Your task to perform on an android device: Search for sushi restaurants on Maps Image 0: 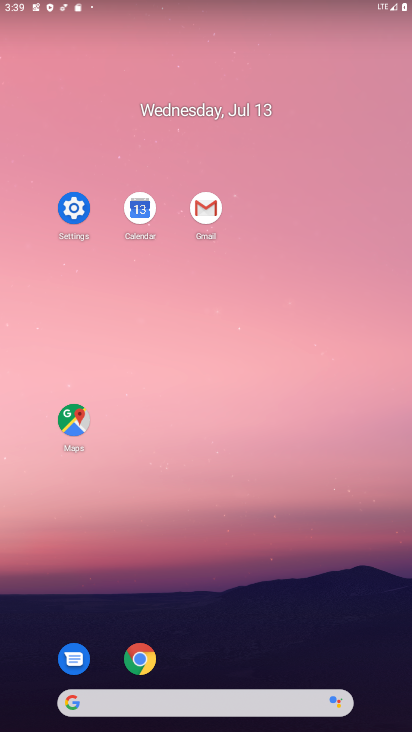
Step 0: click (74, 421)
Your task to perform on an android device: Search for sushi restaurants on Maps Image 1: 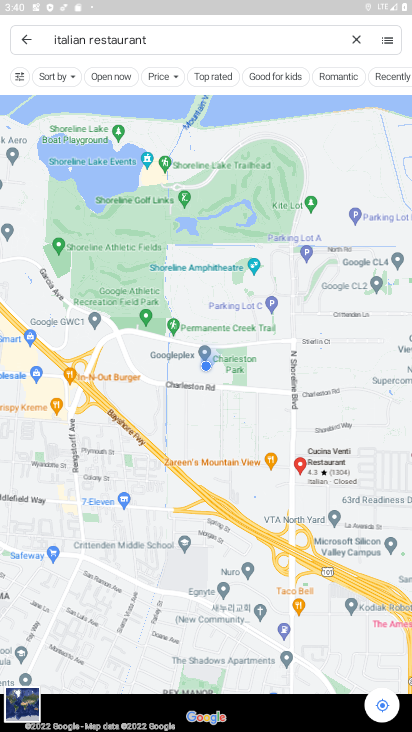
Step 1: click (212, 28)
Your task to perform on an android device: Search for sushi restaurants on Maps Image 2: 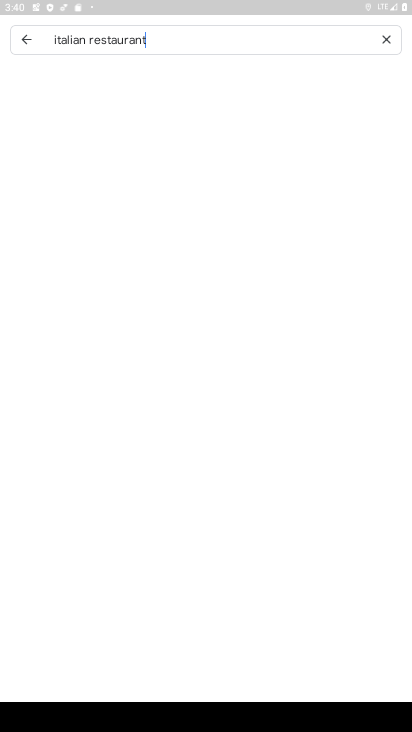
Step 2: click (384, 43)
Your task to perform on an android device: Search for sushi restaurants on Maps Image 3: 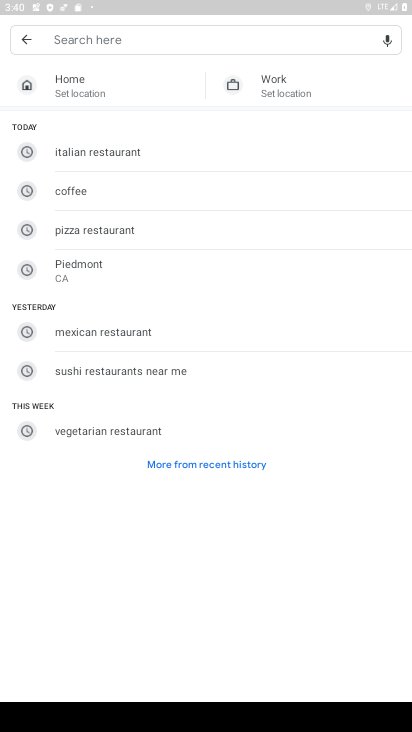
Step 3: click (125, 40)
Your task to perform on an android device: Search for sushi restaurants on Maps Image 4: 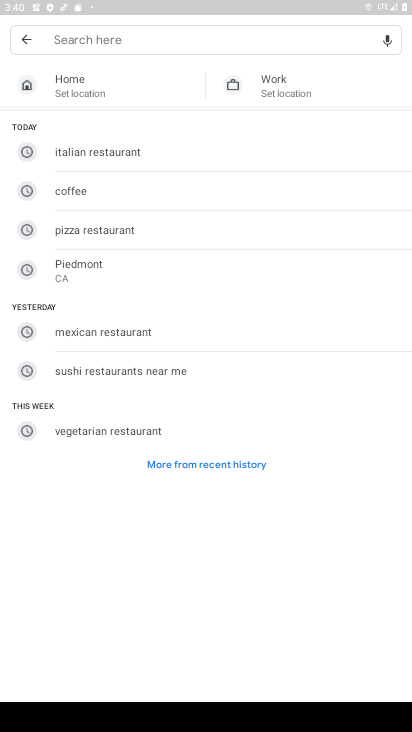
Step 4: type "sushi restaurants"
Your task to perform on an android device: Search for sushi restaurants on Maps Image 5: 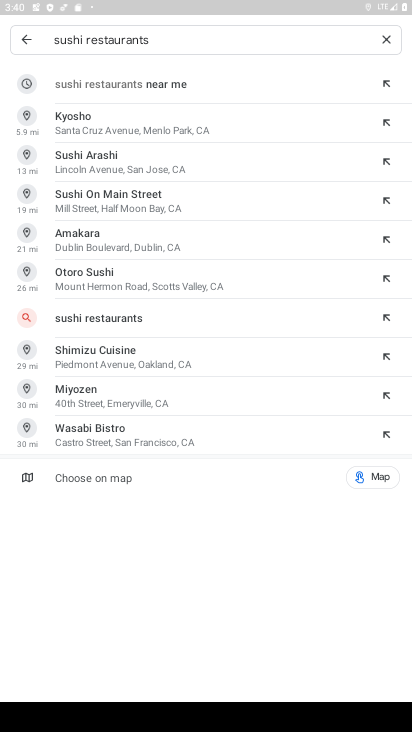
Step 5: task complete